Your task to perform on an android device: Check the news Image 0: 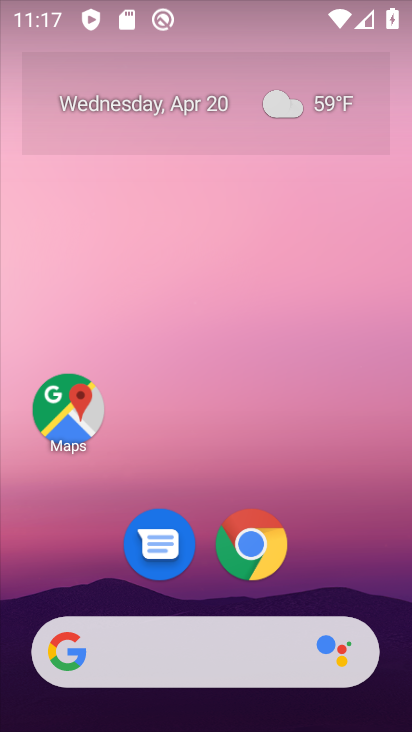
Step 0: drag from (228, 568) to (260, 122)
Your task to perform on an android device: Check the news Image 1: 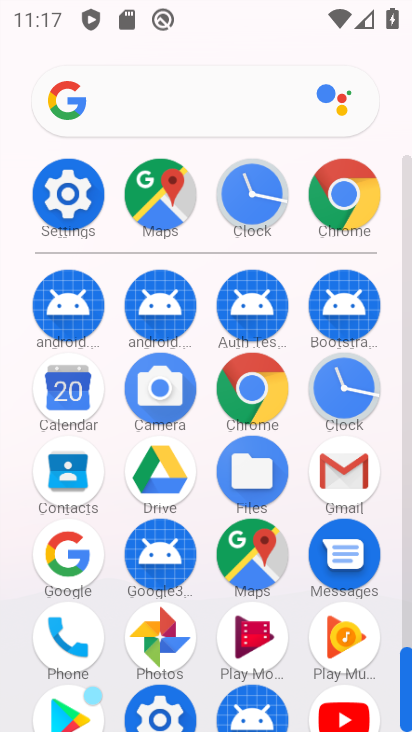
Step 1: click (57, 555)
Your task to perform on an android device: Check the news Image 2: 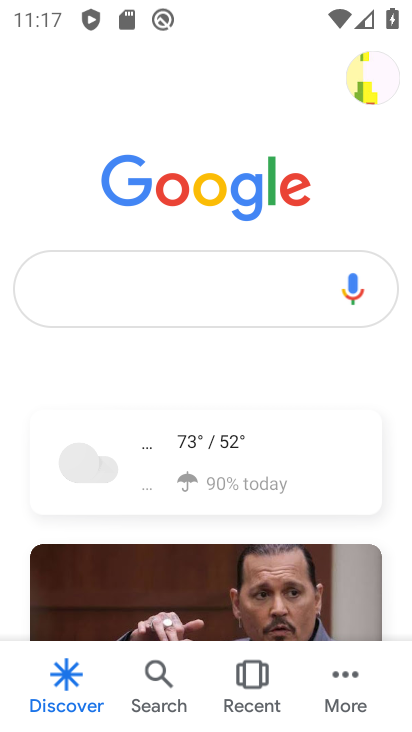
Step 2: click (148, 282)
Your task to perform on an android device: Check the news Image 3: 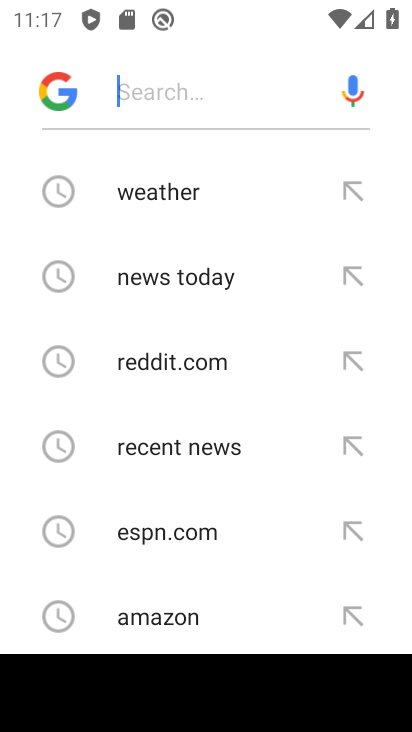
Step 3: type "news"
Your task to perform on an android device: Check the news Image 4: 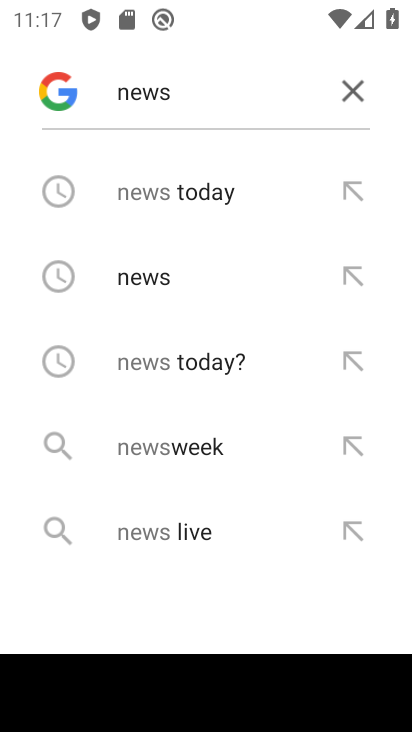
Step 4: click (148, 274)
Your task to perform on an android device: Check the news Image 5: 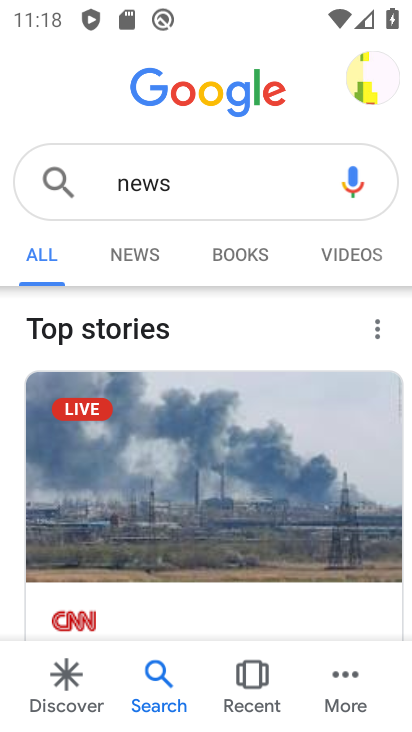
Step 5: task complete